Your task to perform on an android device: change your default location settings in chrome Image 0: 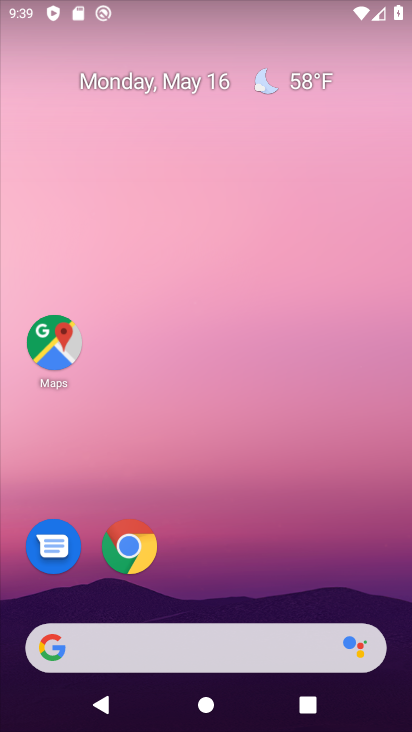
Step 0: click (129, 546)
Your task to perform on an android device: change your default location settings in chrome Image 1: 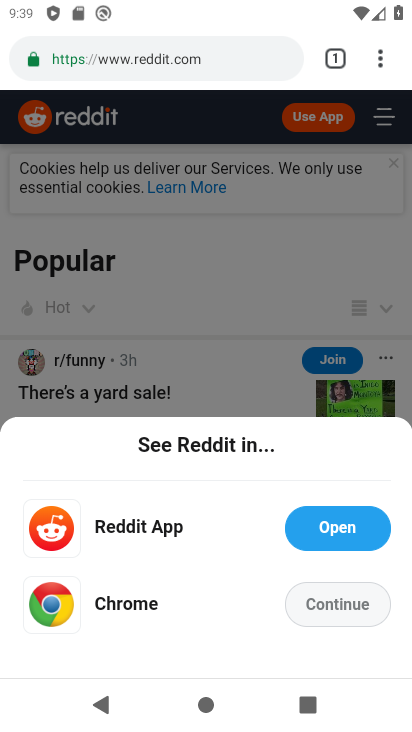
Step 1: click (380, 57)
Your task to perform on an android device: change your default location settings in chrome Image 2: 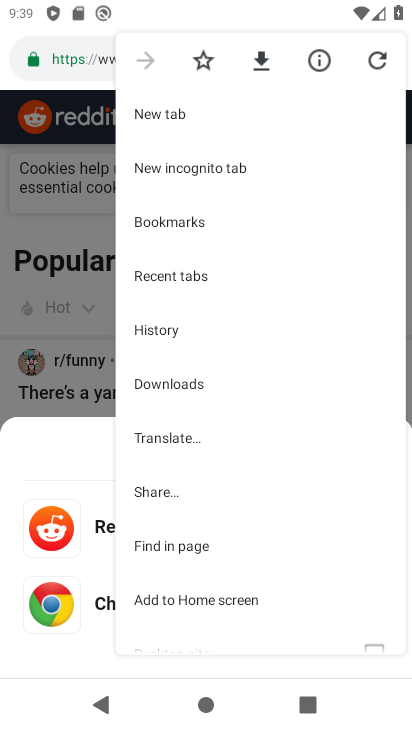
Step 2: drag from (205, 571) to (246, 472)
Your task to perform on an android device: change your default location settings in chrome Image 3: 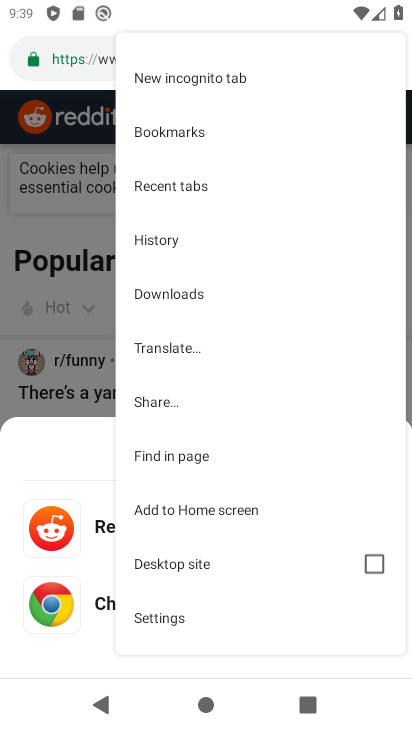
Step 3: drag from (189, 577) to (272, 479)
Your task to perform on an android device: change your default location settings in chrome Image 4: 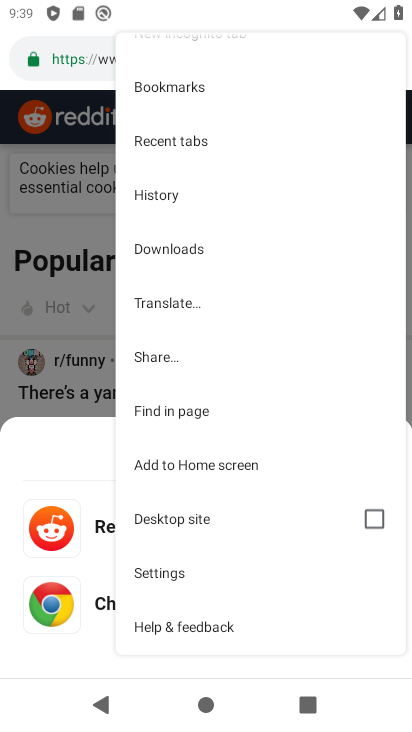
Step 4: click (164, 569)
Your task to perform on an android device: change your default location settings in chrome Image 5: 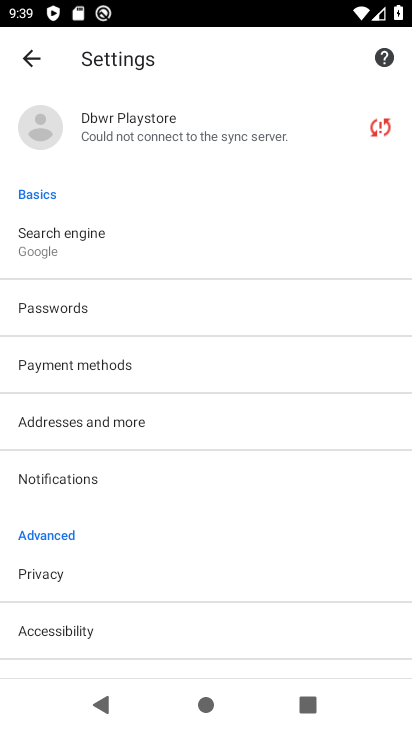
Step 5: drag from (86, 552) to (157, 466)
Your task to perform on an android device: change your default location settings in chrome Image 6: 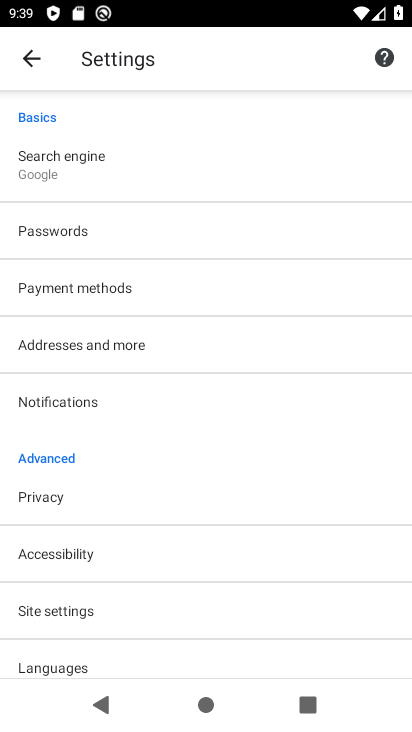
Step 6: drag from (92, 576) to (160, 492)
Your task to perform on an android device: change your default location settings in chrome Image 7: 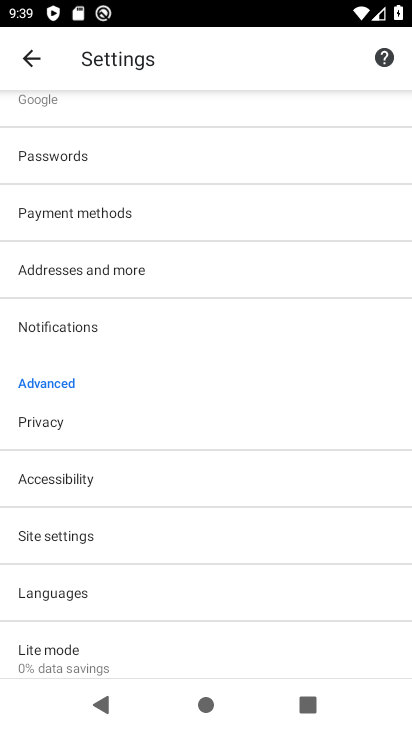
Step 7: click (72, 532)
Your task to perform on an android device: change your default location settings in chrome Image 8: 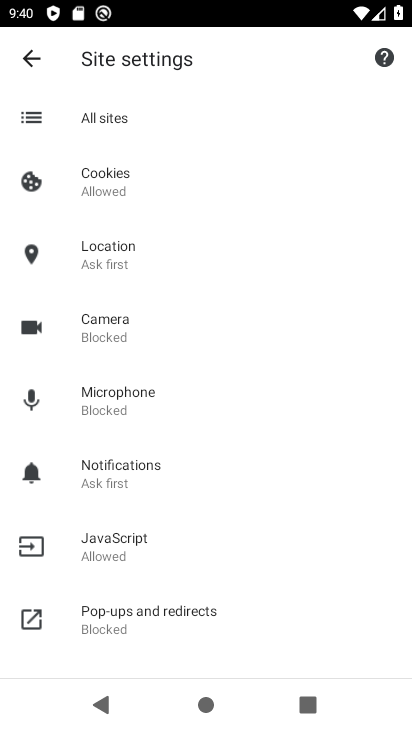
Step 8: click (114, 256)
Your task to perform on an android device: change your default location settings in chrome Image 9: 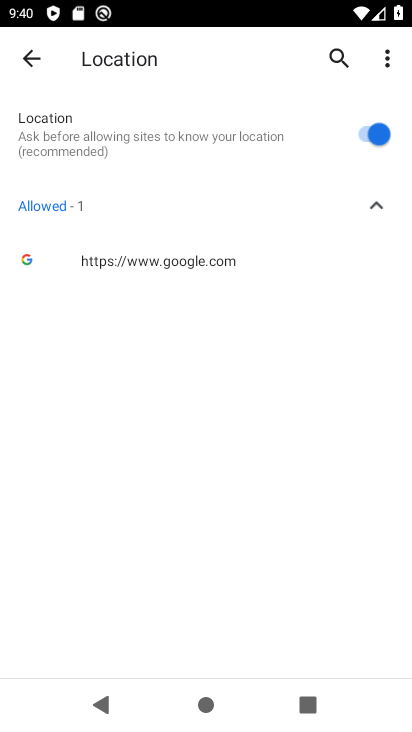
Step 9: click (382, 124)
Your task to perform on an android device: change your default location settings in chrome Image 10: 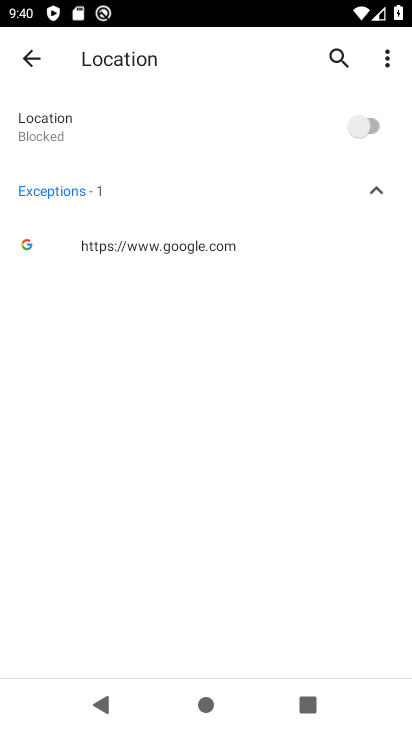
Step 10: task complete